Your task to perform on an android device: turn off priority inbox in the gmail app Image 0: 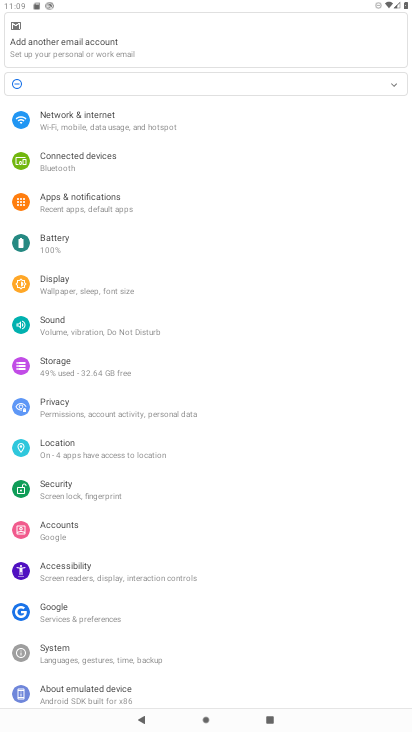
Step 0: press home button
Your task to perform on an android device: turn off priority inbox in the gmail app Image 1: 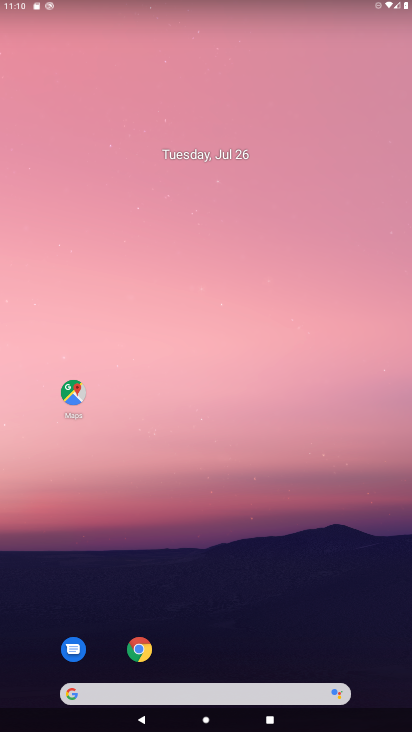
Step 1: drag from (146, 669) to (146, 263)
Your task to perform on an android device: turn off priority inbox in the gmail app Image 2: 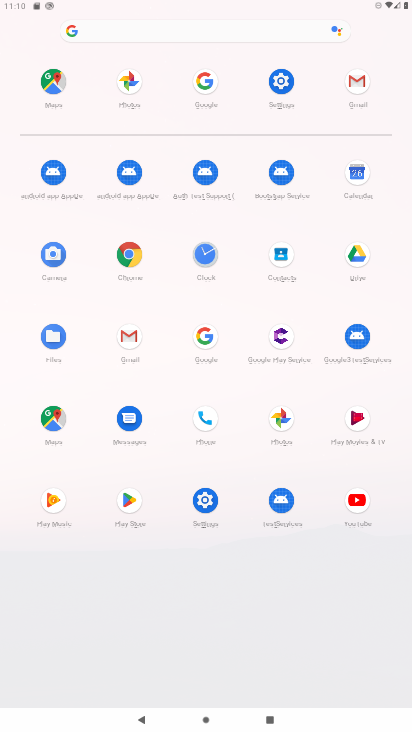
Step 2: click (128, 333)
Your task to perform on an android device: turn off priority inbox in the gmail app Image 3: 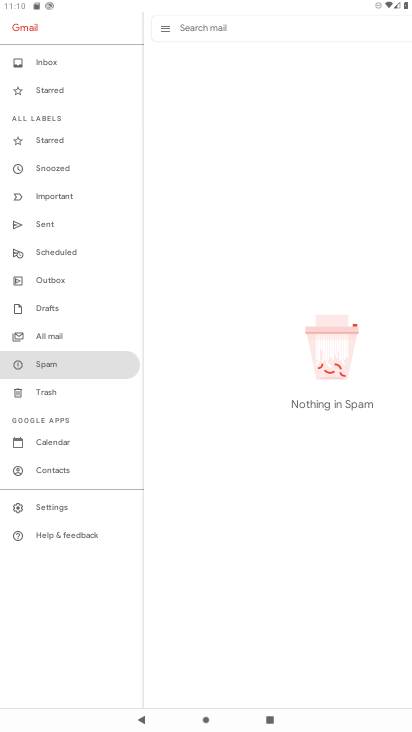
Step 3: click (62, 510)
Your task to perform on an android device: turn off priority inbox in the gmail app Image 4: 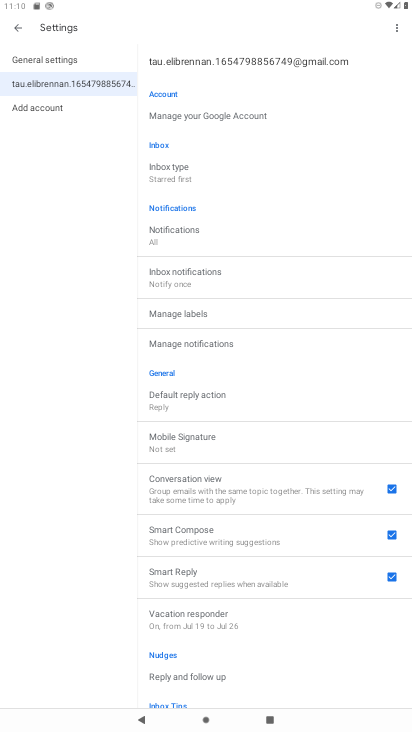
Step 4: click (180, 174)
Your task to perform on an android device: turn off priority inbox in the gmail app Image 5: 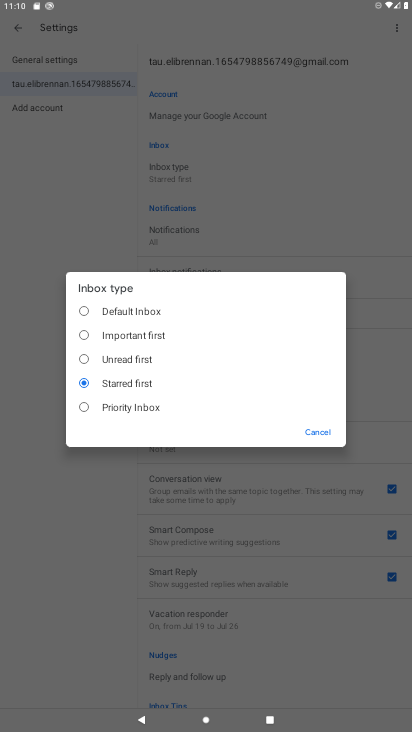
Step 5: task complete